Your task to perform on an android device: turn on priority inbox in the gmail app Image 0: 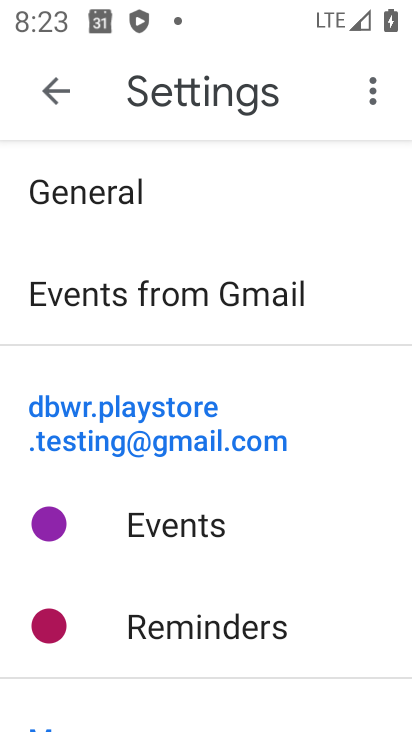
Step 0: press home button
Your task to perform on an android device: turn on priority inbox in the gmail app Image 1: 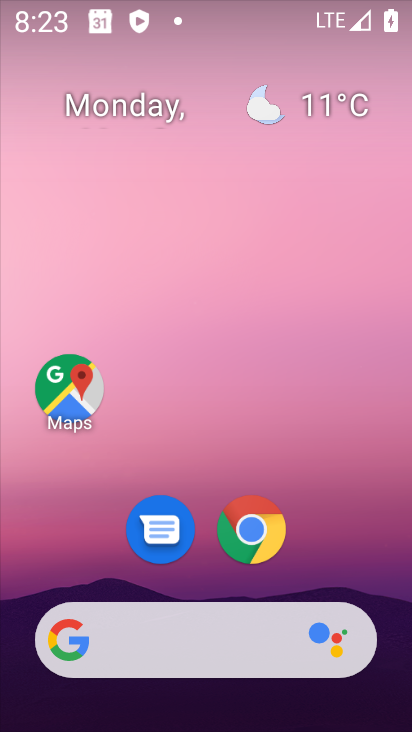
Step 1: drag from (215, 650) to (216, 282)
Your task to perform on an android device: turn on priority inbox in the gmail app Image 2: 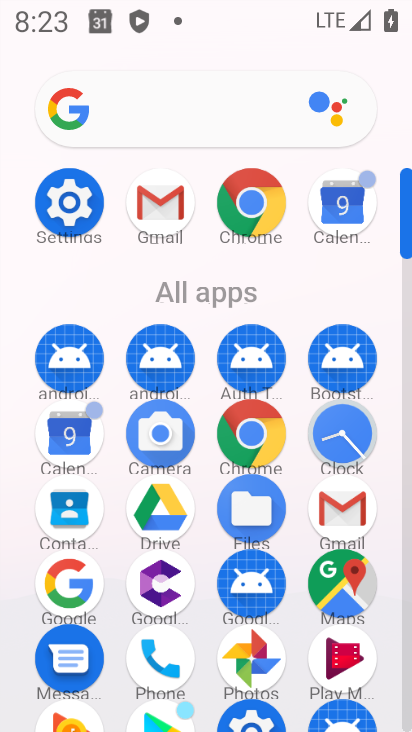
Step 2: click (171, 210)
Your task to perform on an android device: turn on priority inbox in the gmail app Image 3: 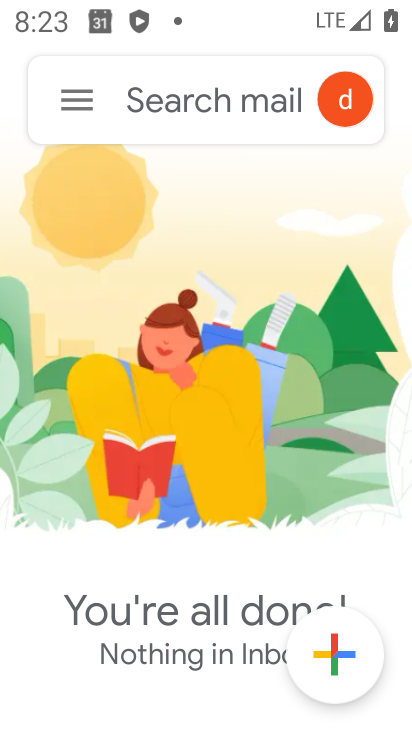
Step 3: click (54, 110)
Your task to perform on an android device: turn on priority inbox in the gmail app Image 4: 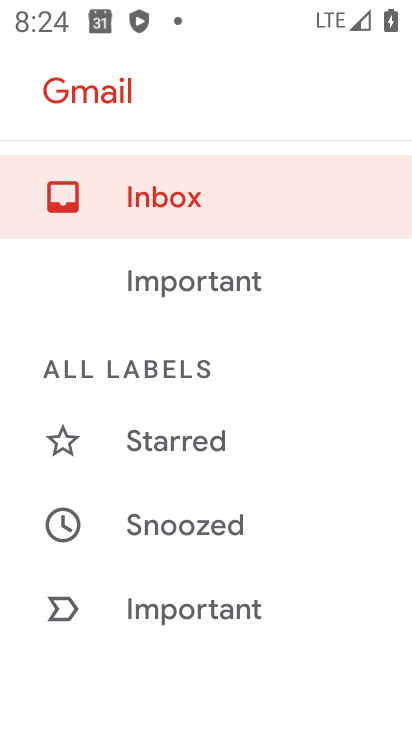
Step 4: drag from (218, 608) to (250, 95)
Your task to perform on an android device: turn on priority inbox in the gmail app Image 5: 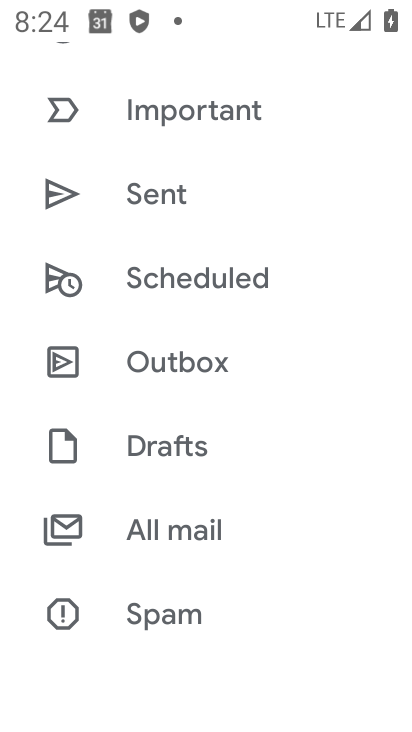
Step 5: drag from (233, 540) to (255, 31)
Your task to perform on an android device: turn on priority inbox in the gmail app Image 6: 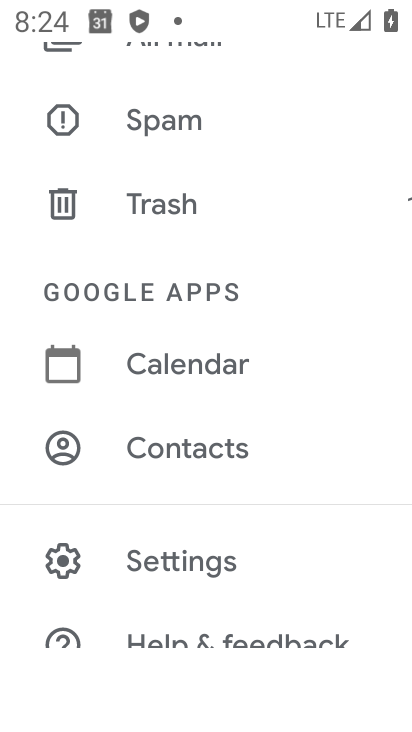
Step 6: click (154, 566)
Your task to perform on an android device: turn on priority inbox in the gmail app Image 7: 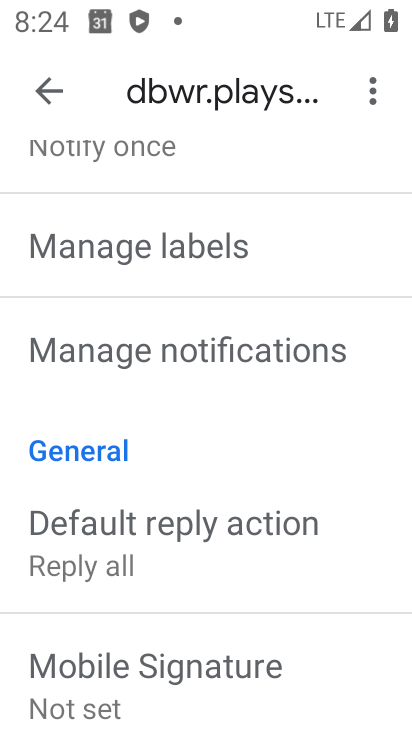
Step 7: drag from (176, 237) to (182, 729)
Your task to perform on an android device: turn on priority inbox in the gmail app Image 8: 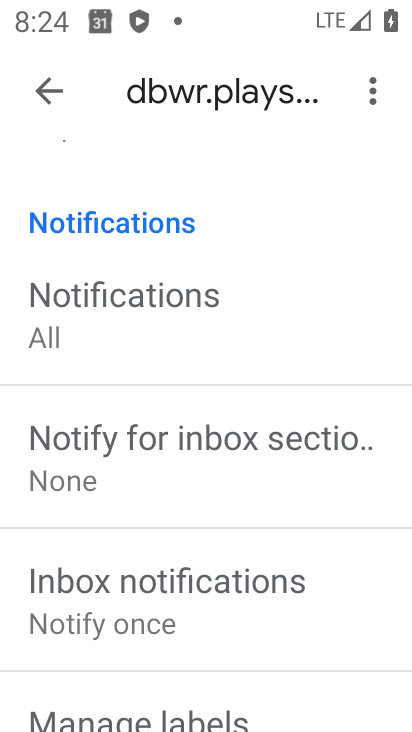
Step 8: drag from (153, 293) to (183, 573)
Your task to perform on an android device: turn on priority inbox in the gmail app Image 9: 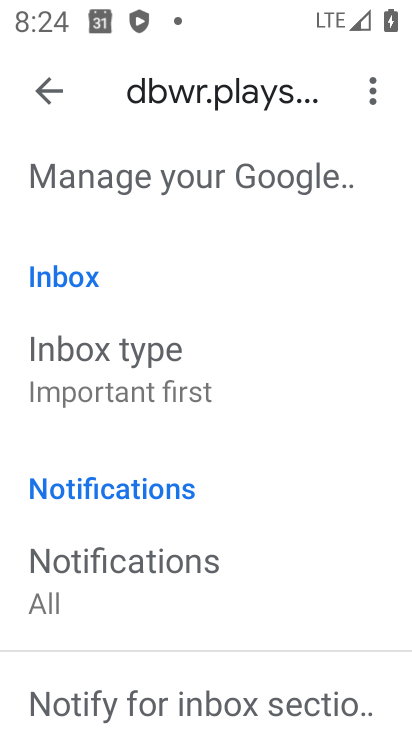
Step 9: click (164, 377)
Your task to perform on an android device: turn on priority inbox in the gmail app Image 10: 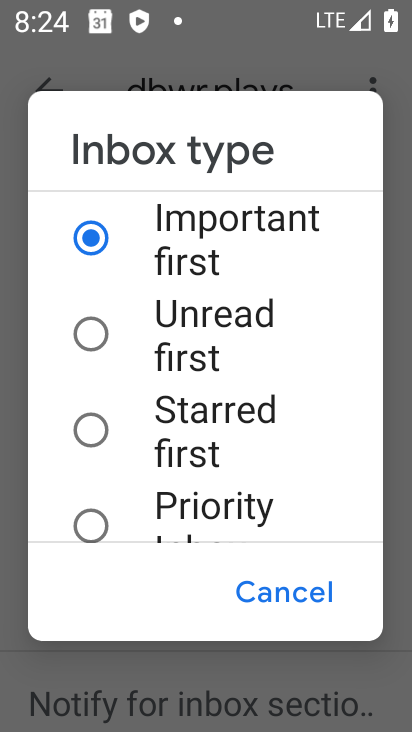
Step 10: click (218, 510)
Your task to perform on an android device: turn on priority inbox in the gmail app Image 11: 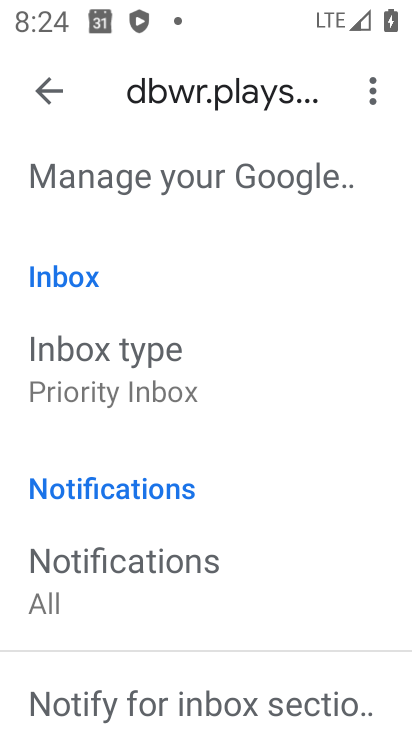
Step 11: task complete